Your task to perform on an android device: Open the calendar app, open the side menu, and click the "Day" option Image 0: 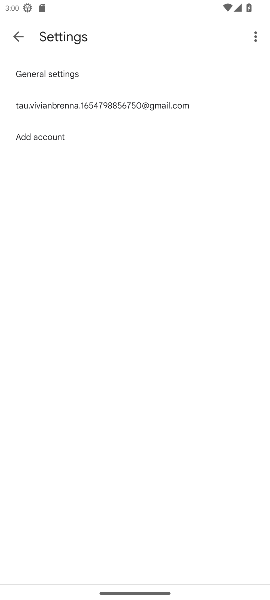
Step 0: press home button
Your task to perform on an android device: Open the calendar app, open the side menu, and click the "Day" option Image 1: 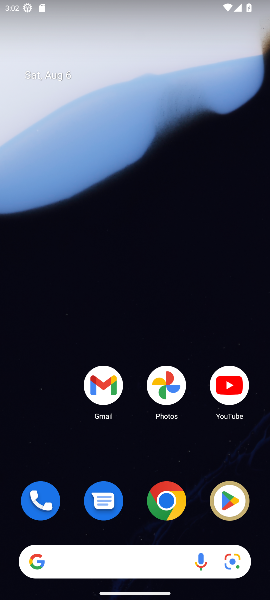
Step 1: drag from (59, 572) to (147, 153)
Your task to perform on an android device: Open the calendar app, open the side menu, and click the "Day" option Image 2: 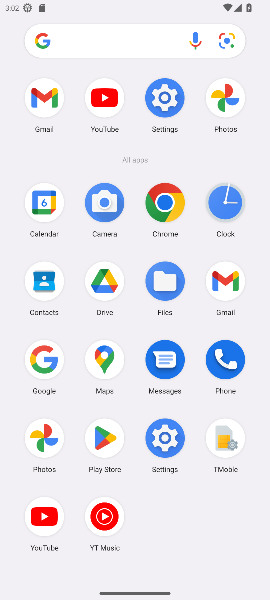
Step 2: click (30, 199)
Your task to perform on an android device: Open the calendar app, open the side menu, and click the "Day" option Image 3: 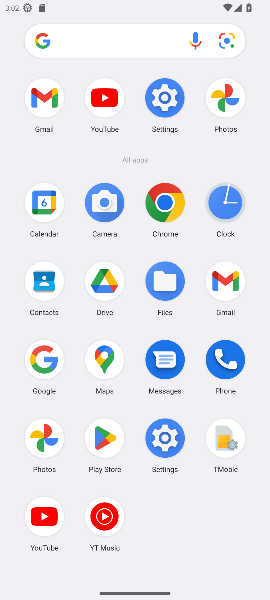
Step 3: click (30, 199)
Your task to perform on an android device: Open the calendar app, open the side menu, and click the "Day" option Image 4: 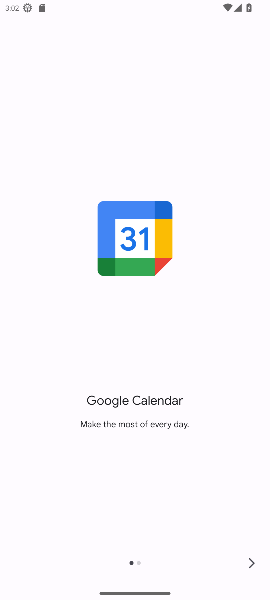
Step 4: click (258, 557)
Your task to perform on an android device: Open the calendar app, open the side menu, and click the "Day" option Image 5: 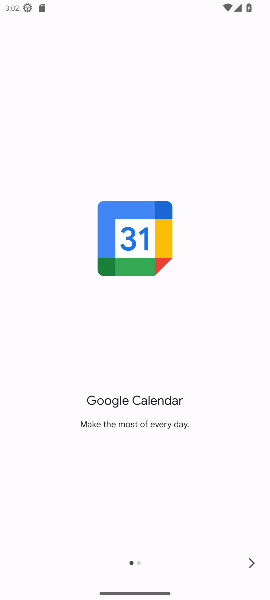
Step 5: click (258, 557)
Your task to perform on an android device: Open the calendar app, open the side menu, and click the "Day" option Image 6: 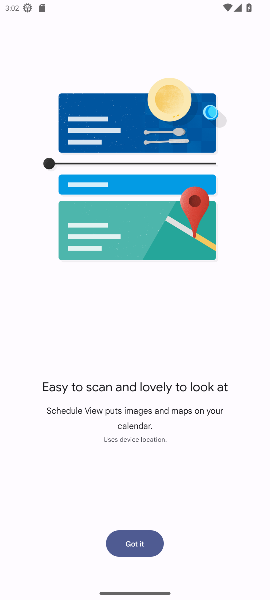
Step 6: click (125, 545)
Your task to perform on an android device: Open the calendar app, open the side menu, and click the "Day" option Image 7: 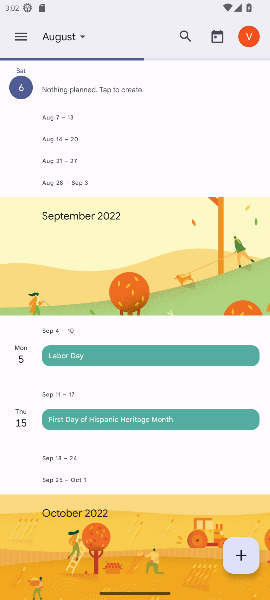
Step 7: click (21, 37)
Your task to perform on an android device: Open the calendar app, open the side menu, and click the "Day" option Image 8: 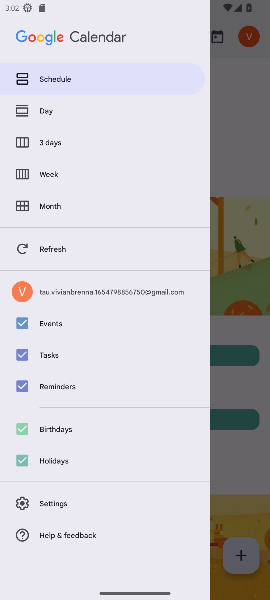
Step 8: click (70, 107)
Your task to perform on an android device: Open the calendar app, open the side menu, and click the "Day" option Image 9: 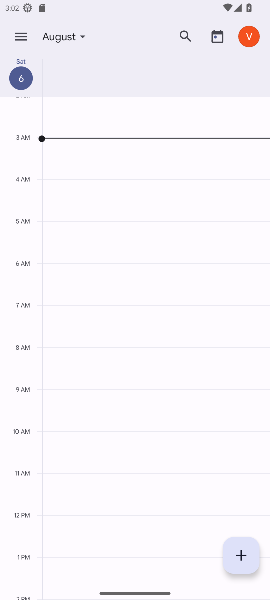
Step 9: task complete